Your task to perform on an android device: Go to wifi settings Image 0: 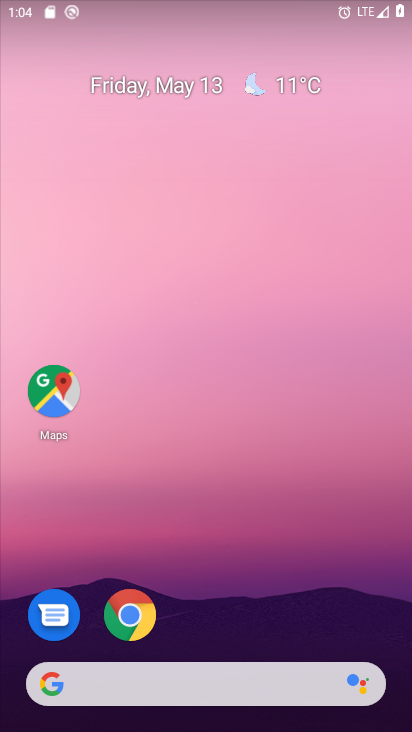
Step 0: drag from (291, 554) to (343, 41)
Your task to perform on an android device: Go to wifi settings Image 1: 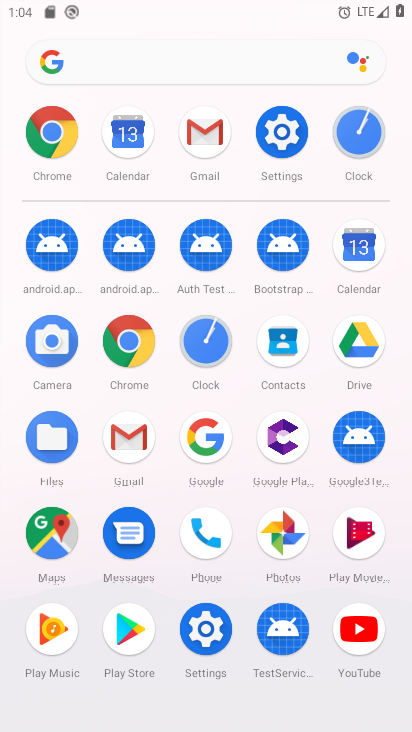
Step 1: click (288, 134)
Your task to perform on an android device: Go to wifi settings Image 2: 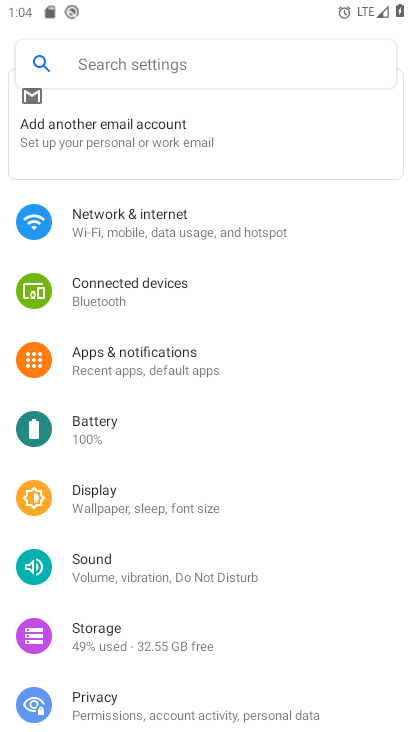
Step 2: click (199, 228)
Your task to perform on an android device: Go to wifi settings Image 3: 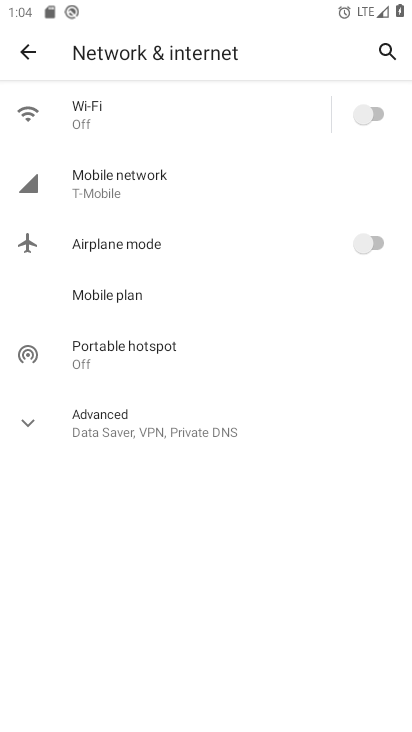
Step 3: click (221, 110)
Your task to perform on an android device: Go to wifi settings Image 4: 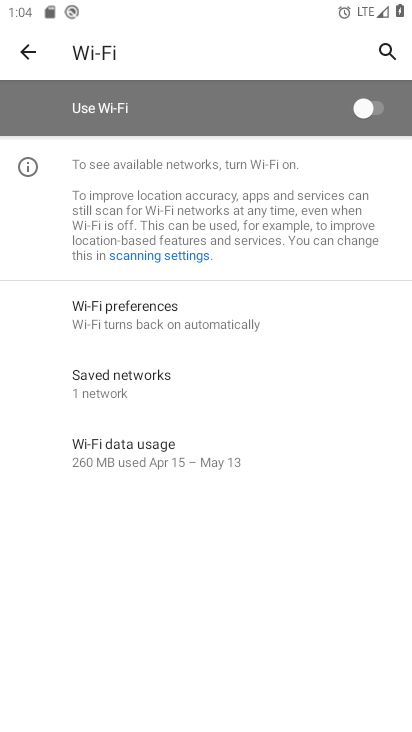
Step 4: task complete